Your task to perform on an android device: Go to accessibility settings Image 0: 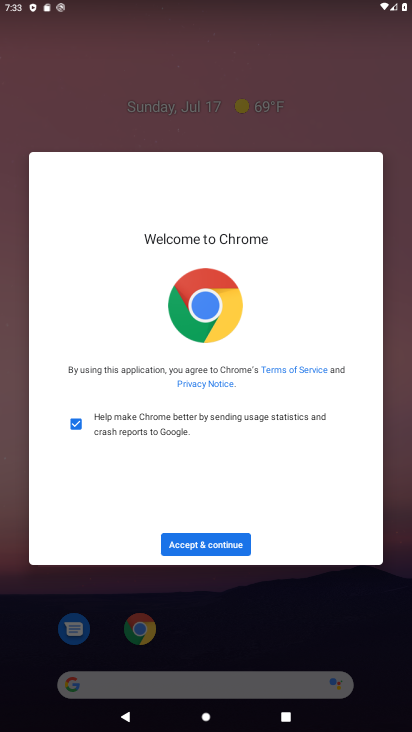
Step 0: press home button
Your task to perform on an android device: Go to accessibility settings Image 1: 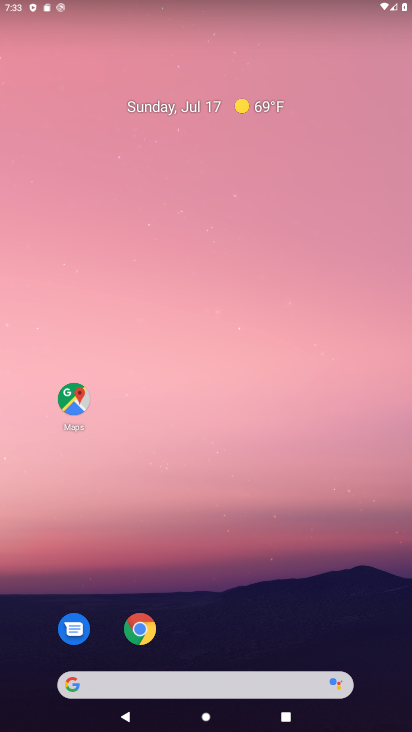
Step 1: drag from (250, 633) to (250, 111)
Your task to perform on an android device: Go to accessibility settings Image 2: 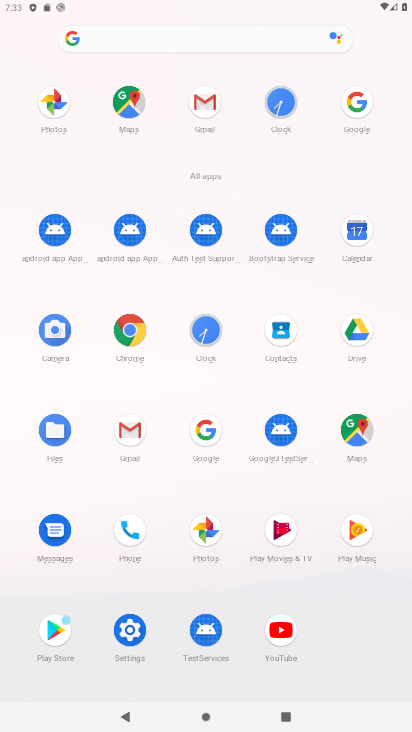
Step 2: click (134, 626)
Your task to perform on an android device: Go to accessibility settings Image 3: 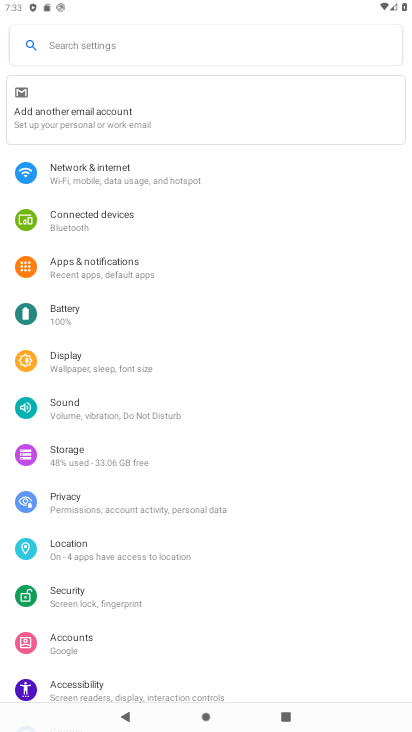
Step 3: drag from (161, 693) to (139, 502)
Your task to perform on an android device: Go to accessibility settings Image 4: 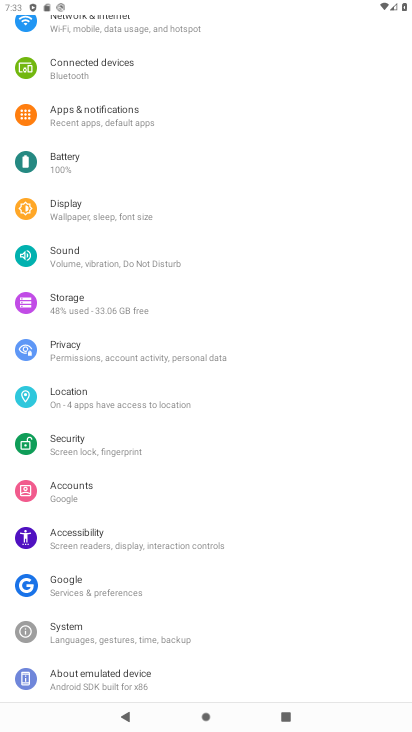
Step 4: click (131, 539)
Your task to perform on an android device: Go to accessibility settings Image 5: 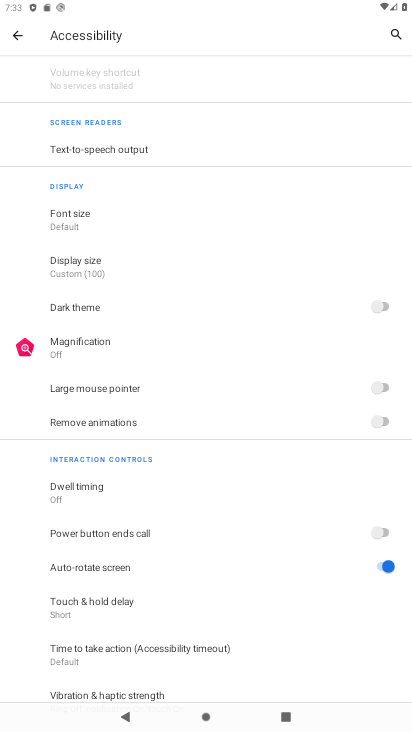
Step 5: task complete